Your task to perform on an android device: toggle notifications settings in the gmail app Image 0: 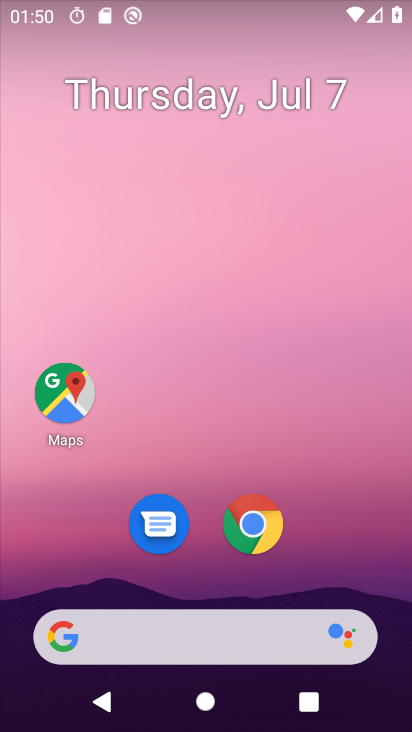
Step 0: drag from (222, 459) to (253, 0)
Your task to perform on an android device: toggle notifications settings in the gmail app Image 1: 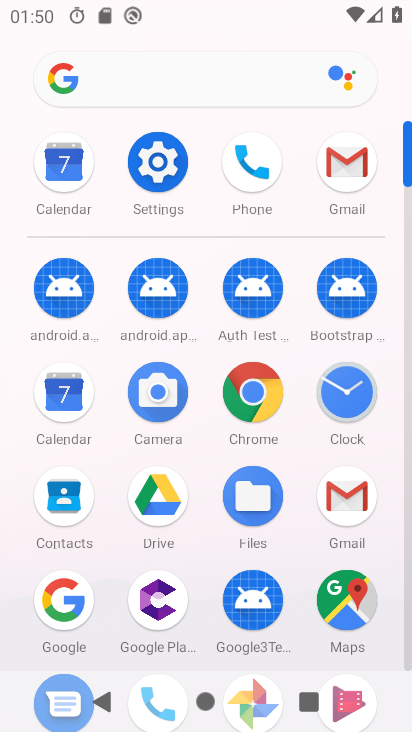
Step 1: click (357, 169)
Your task to perform on an android device: toggle notifications settings in the gmail app Image 2: 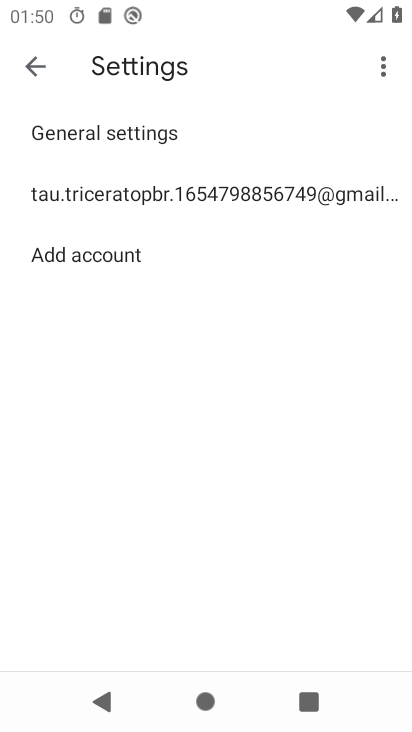
Step 2: click (160, 120)
Your task to perform on an android device: toggle notifications settings in the gmail app Image 3: 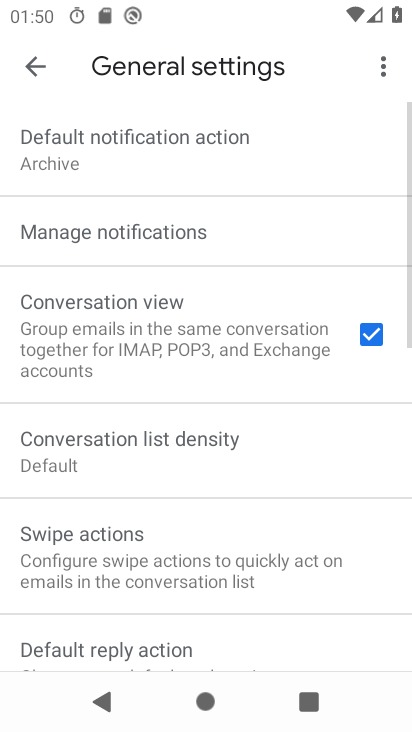
Step 3: click (250, 239)
Your task to perform on an android device: toggle notifications settings in the gmail app Image 4: 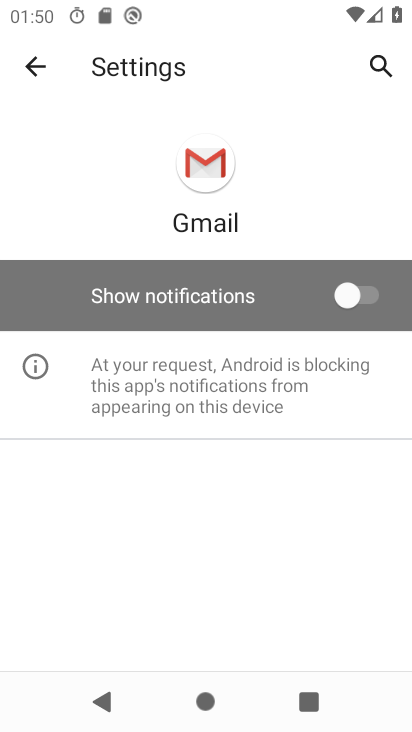
Step 4: click (362, 295)
Your task to perform on an android device: toggle notifications settings in the gmail app Image 5: 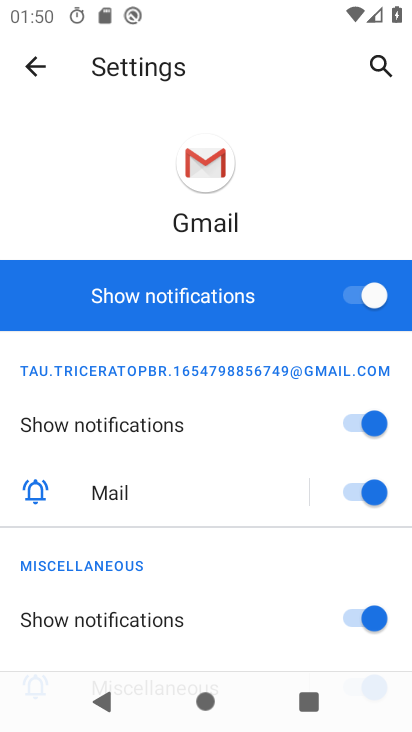
Step 5: task complete